Your task to perform on an android device: Open the web browser Image 0: 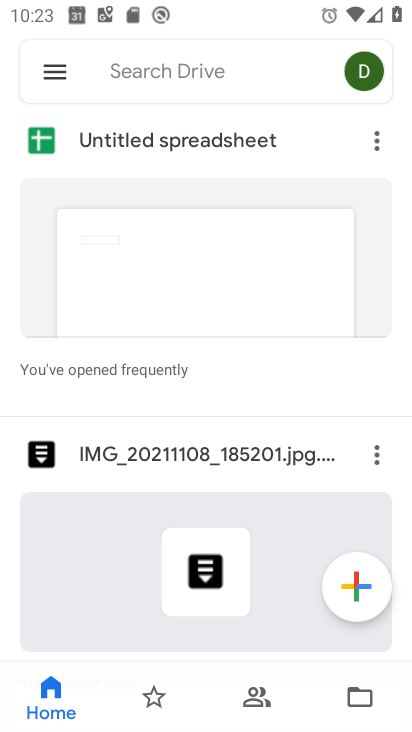
Step 0: press home button
Your task to perform on an android device: Open the web browser Image 1: 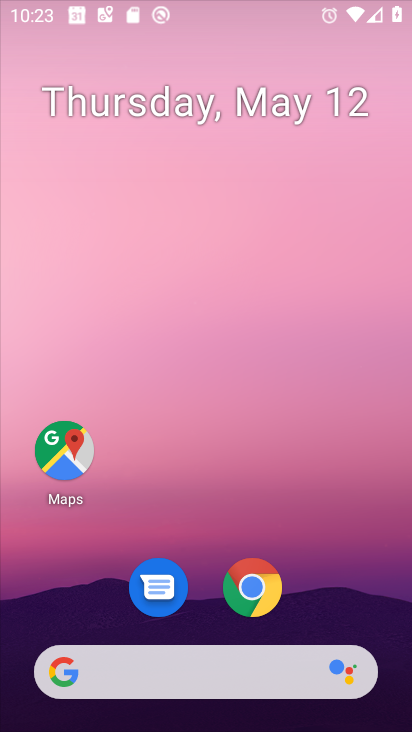
Step 1: drag from (400, 611) to (242, 2)
Your task to perform on an android device: Open the web browser Image 2: 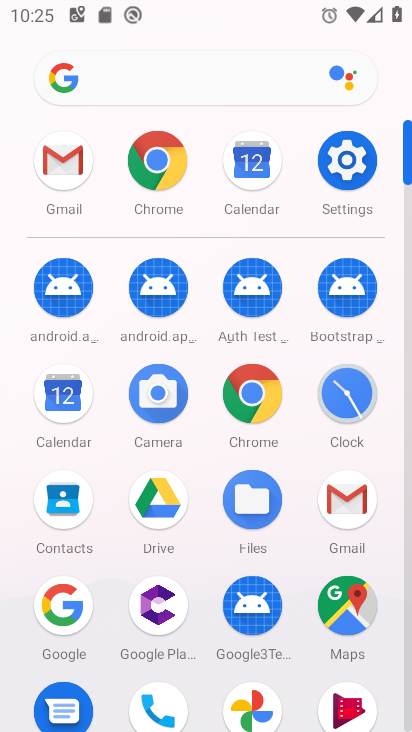
Step 2: click (252, 398)
Your task to perform on an android device: Open the web browser Image 3: 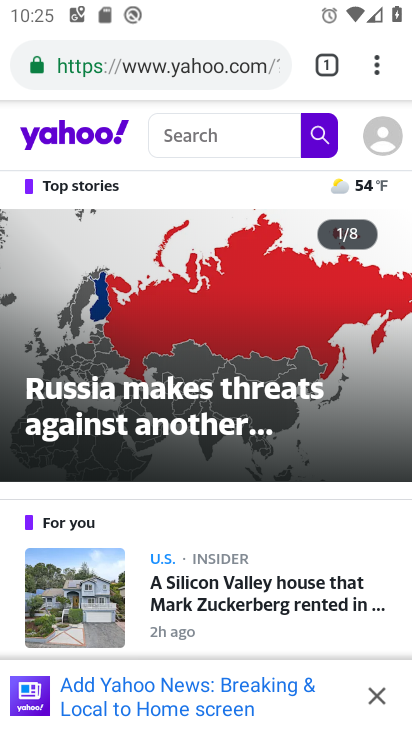
Step 3: task complete